Your task to perform on an android device: Do I have any events this weekend? Image 0: 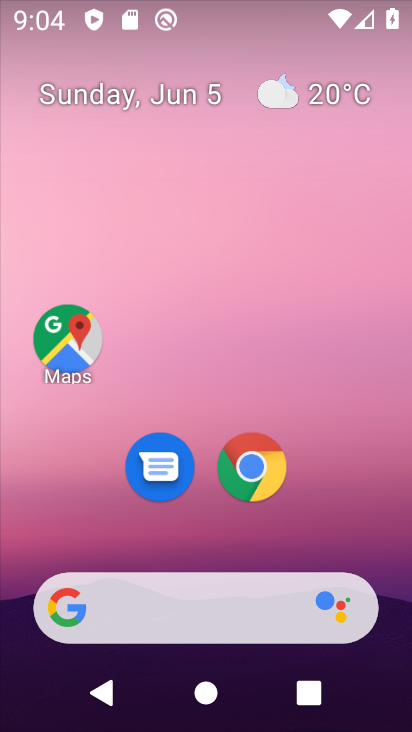
Step 0: drag from (312, 527) to (253, 0)
Your task to perform on an android device: Do I have any events this weekend? Image 1: 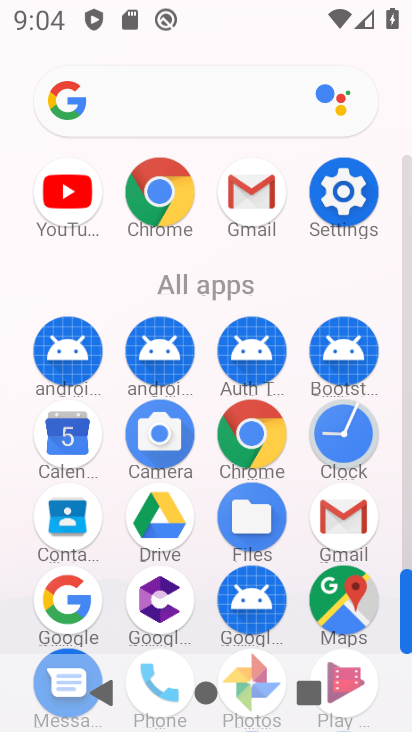
Step 1: click (53, 443)
Your task to perform on an android device: Do I have any events this weekend? Image 2: 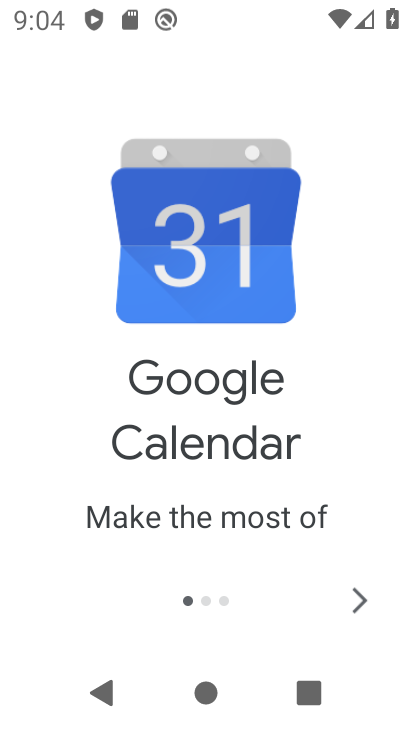
Step 2: click (358, 603)
Your task to perform on an android device: Do I have any events this weekend? Image 3: 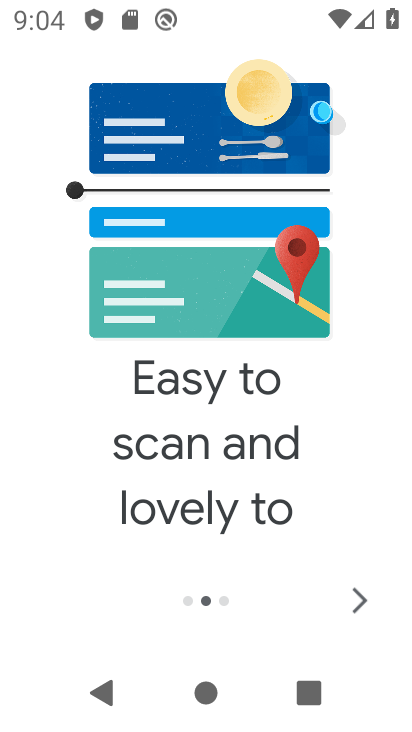
Step 3: click (358, 603)
Your task to perform on an android device: Do I have any events this weekend? Image 4: 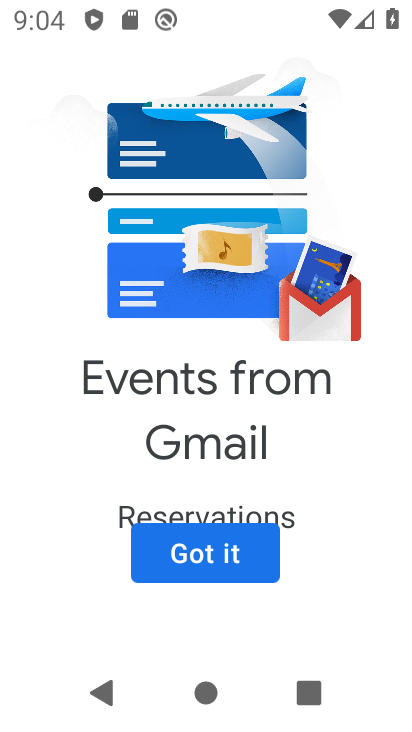
Step 4: click (223, 547)
Your task to perform on an android device: Do I have any events this weekend? Image 5: 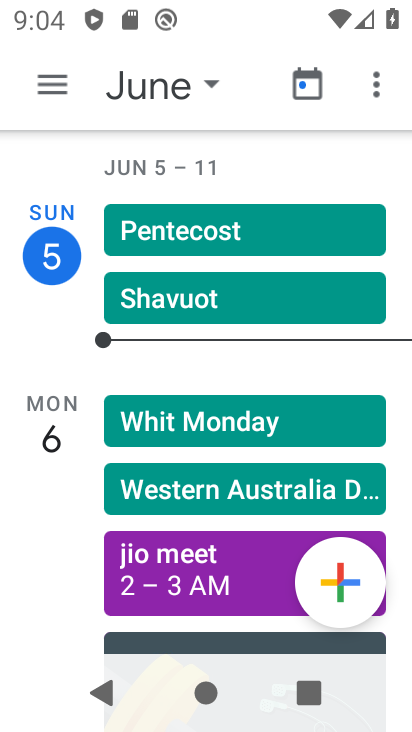
Step 5: click (204, 92)
Your task to perform on an android device: Do I have any events this weekend? Image 6: 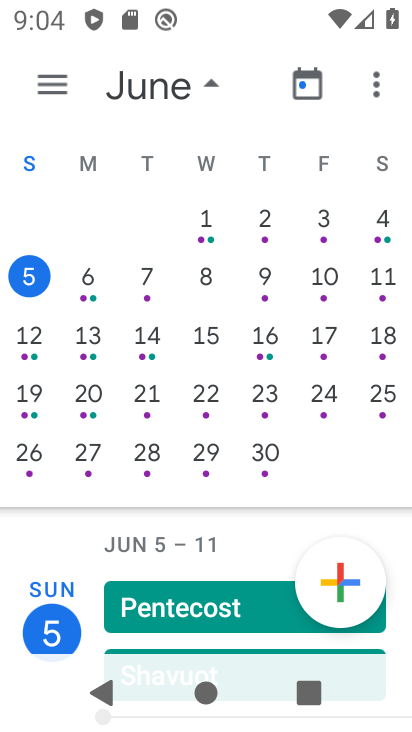
Step 6: click (369, 278)
Your task to perform on an android device: Do I have any events this weekend? Image 7: 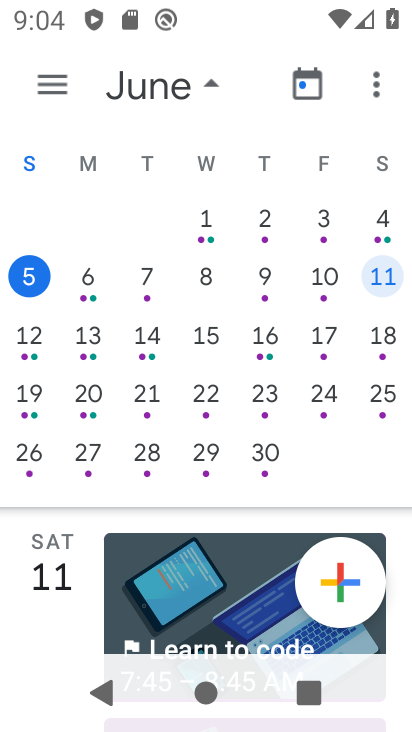
Step 7: task complete